Your task to perform on an android device: remove spam from my inbox in the gmail app Image 0: 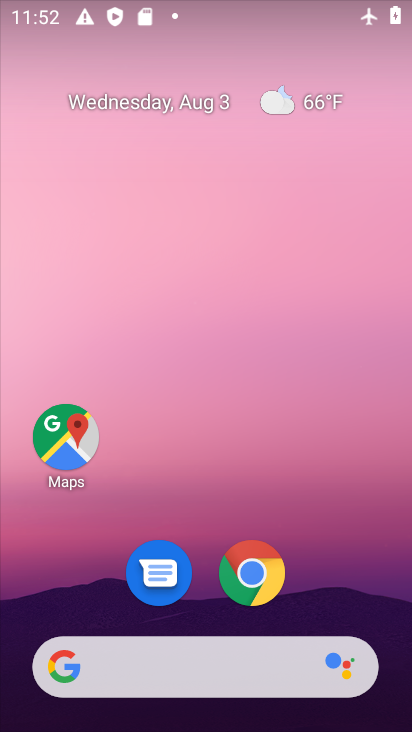
Step 0: drag from (360, 573) to (275, 138)
Your task to perform on an android device: remove spam from my inbox in the gmail app Image 1: 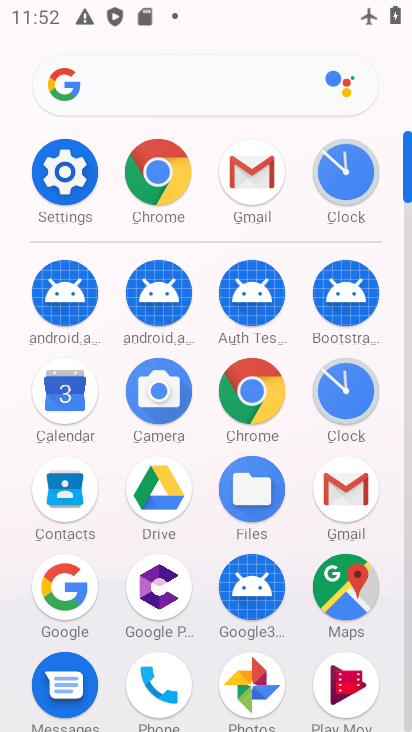
Step 1: click (346, 498)
Your task to perform on an android device: remove spam from my inbox in the gmail app Image 2: 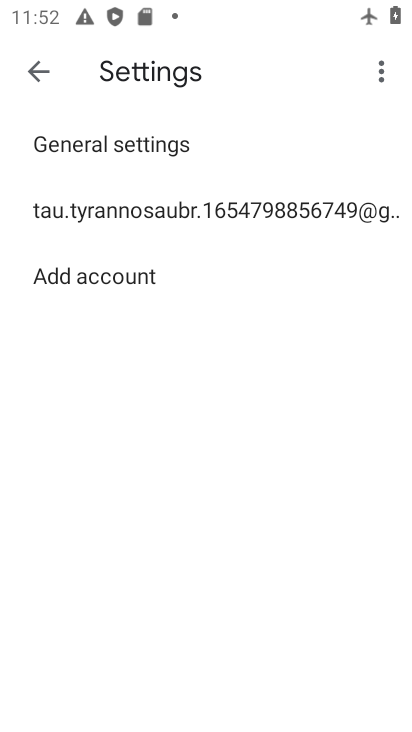
Step 2: click (31, 60)
Your task to perform on an android device: remove spam from my inbox in the gmail app Image 3: 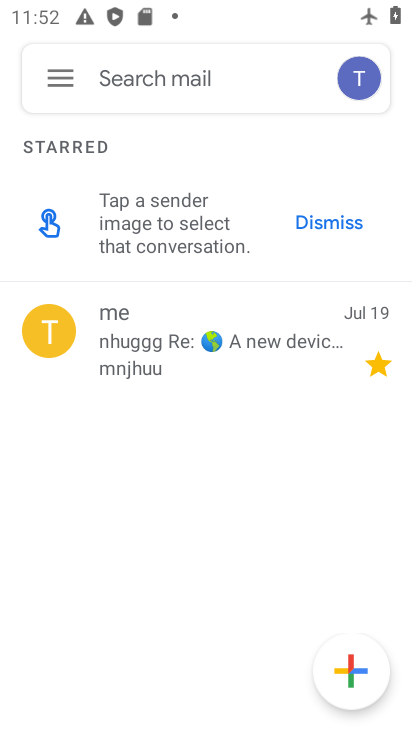
Step 3: click (44, 69)
Your task to perform on an android device: remove spam from my inbox in the gmail app Image 4: 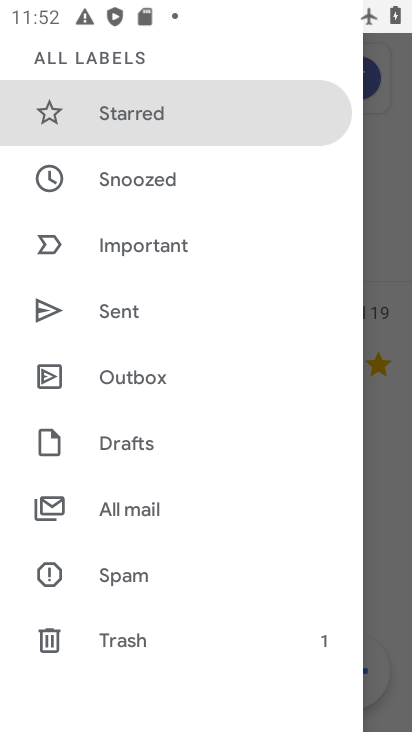
Step 4: click (132, 576)
Your task to perform on an android device: remove spam from my inbox in the gmail app Image 5: 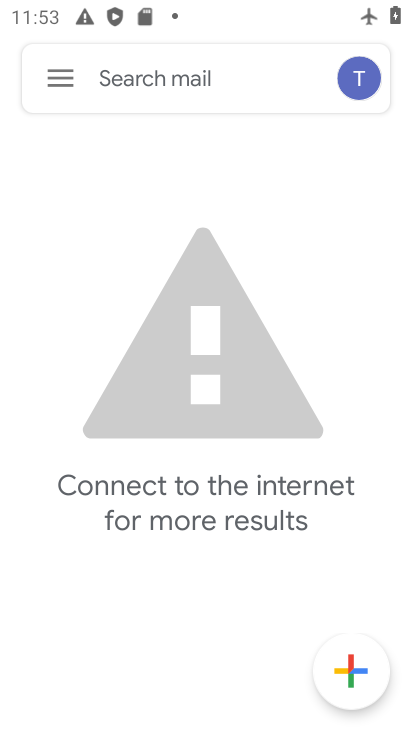
Step 5: task complete